Your task to perform on an android device: Show me popular games on the Play Store Image 0: 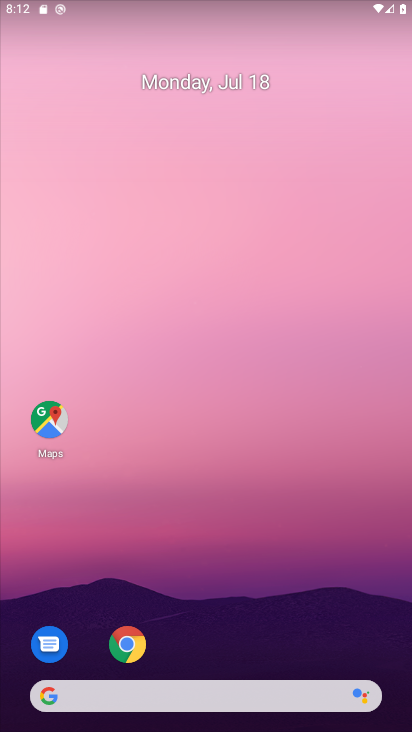
Step 0: drag from (278, 639) to (220, 54)
Your task to perform on an android device: Show me popular games on the Play Store Image 1: 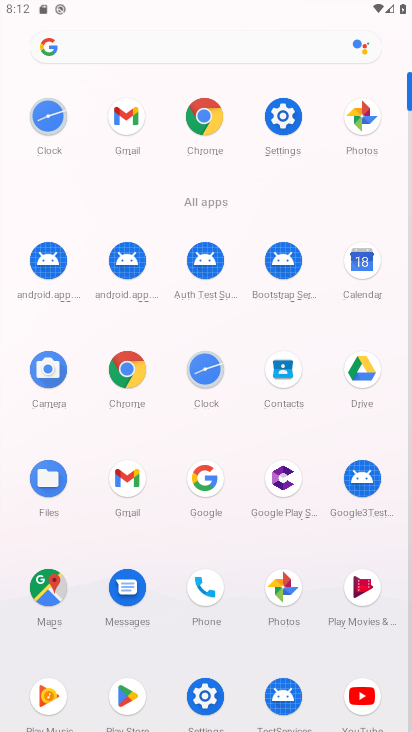
Step 1: click (372, 701)
Your task to perform on an android device: Show me popular games on the Play Store Image 2: 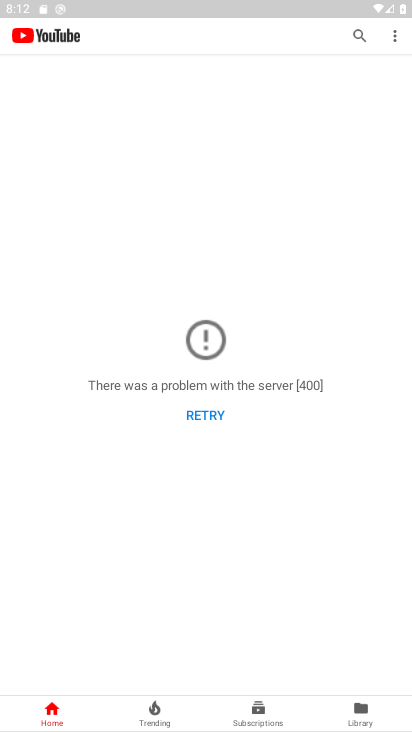
Step 2: press back button
Your task to perform on an android device: Show me popular games on the Play Store Image 3: 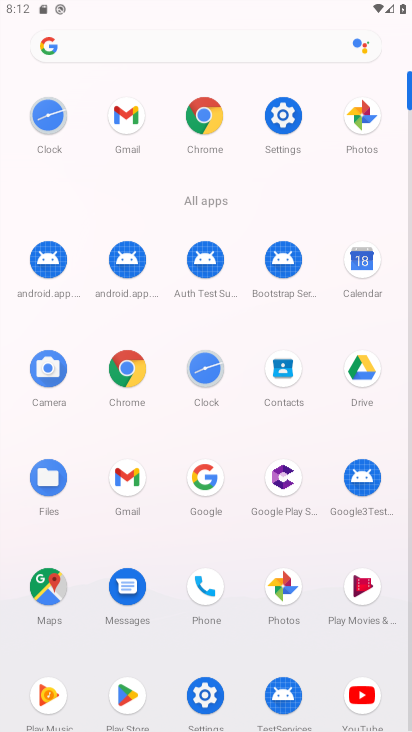
Step 3: press back button
Your task to perform on an android device: Show me popular games on the Play Store Image 4: 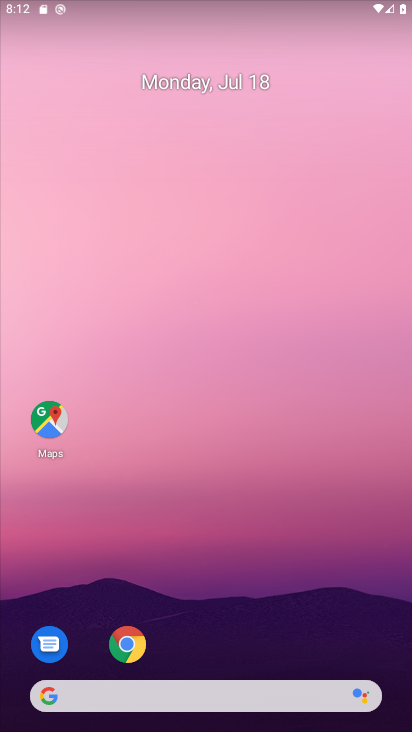
Step 4: drag from (238, 657) to (220, 172)
Your task to perform on an android device: Show me popular games on the Play Store Image 5: 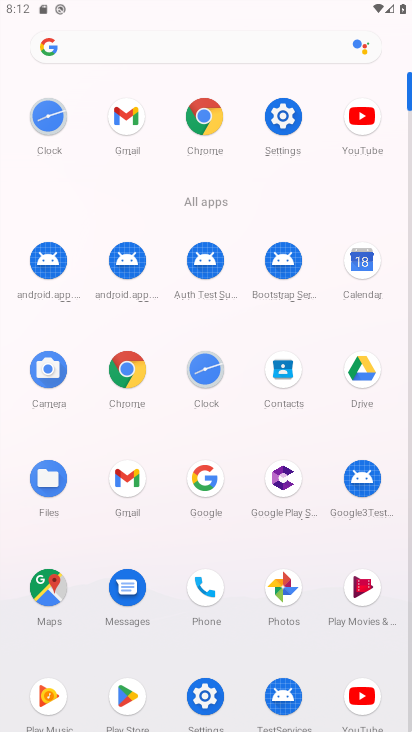
Step 5: click (120, 699)
Your task to perform on an android device: Show me popular games on the Play Store Image 6: 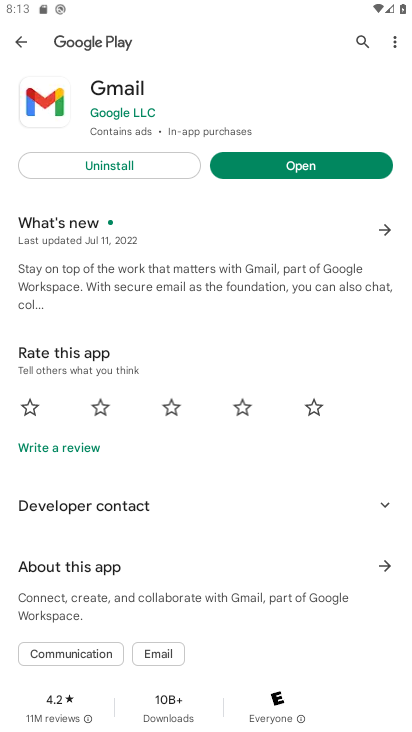
Step 6: click (26, 38)
Your task to perform on an android device: Show me popular games on the Play Store Image 7: 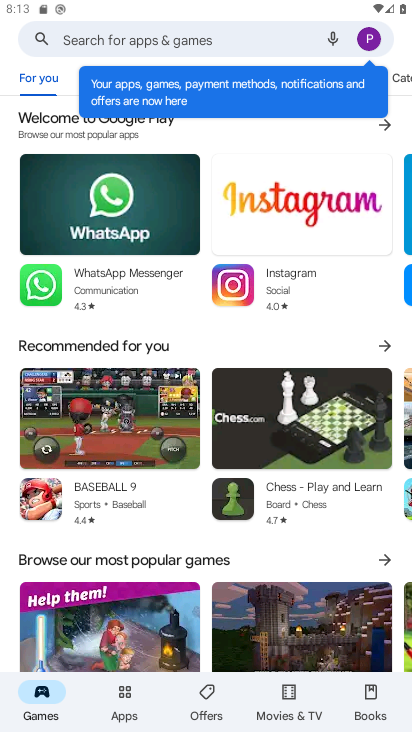
Step 7: click (226, 93)
Your task to perform on an android device: Show me popular games on the Play Store Image 8: 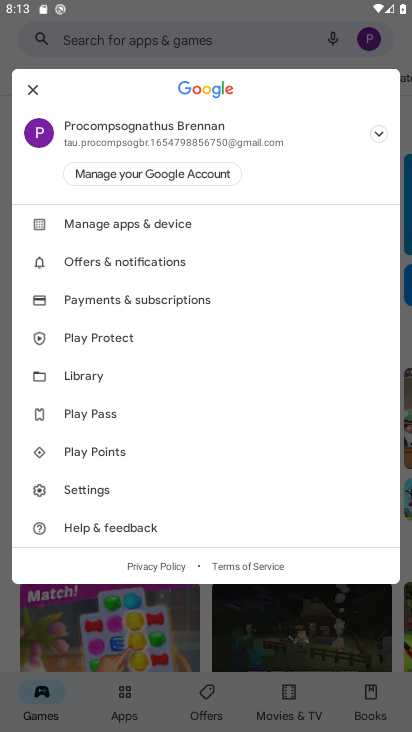
Step 8: click (98, 82)
Your task to perform on an android device: Show me popular games on the Play Store Image 9: 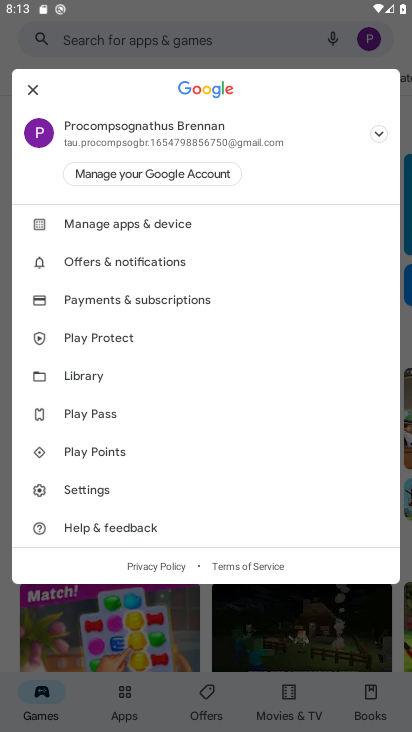
Step 9: task complete